Your task to perform on an android device: Open ESPN.com Image 0: 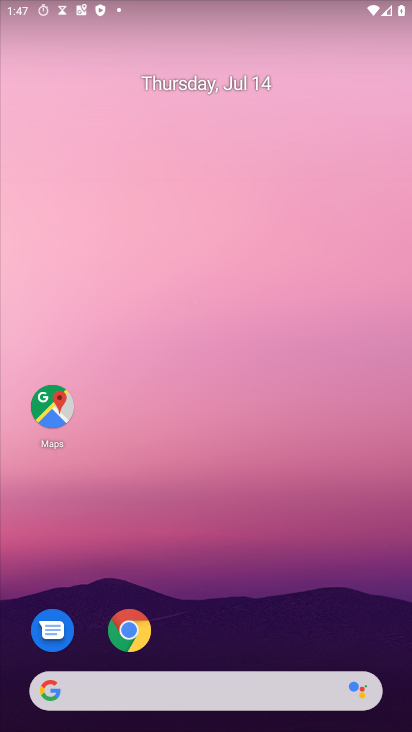
Step 0: click (130, 619)
Your task to perform on an android device: Open ESPN.com Image 1: 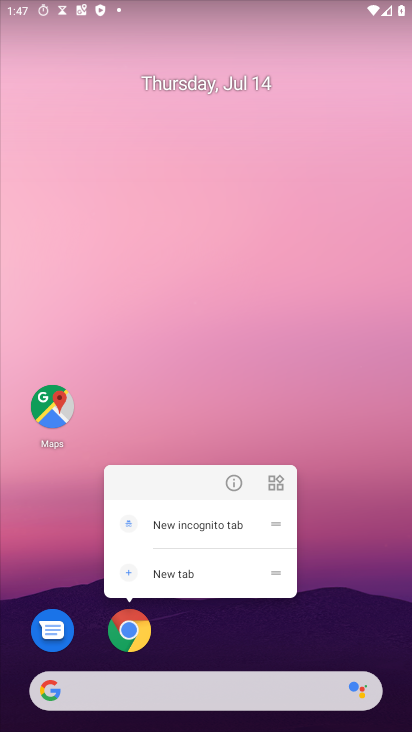
Step 1: click (127, 637)
Your task to perform on an android device: Open ESPN.com Image 2: 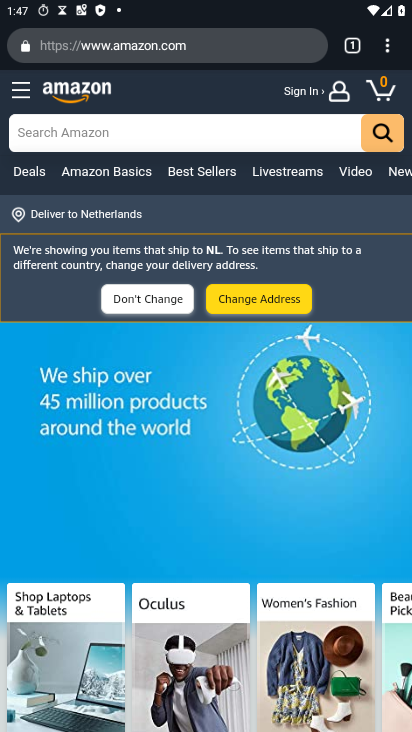
Step 2: click (164, 50)
Your task to perform on an android device: Open ESPN.com Image 3: 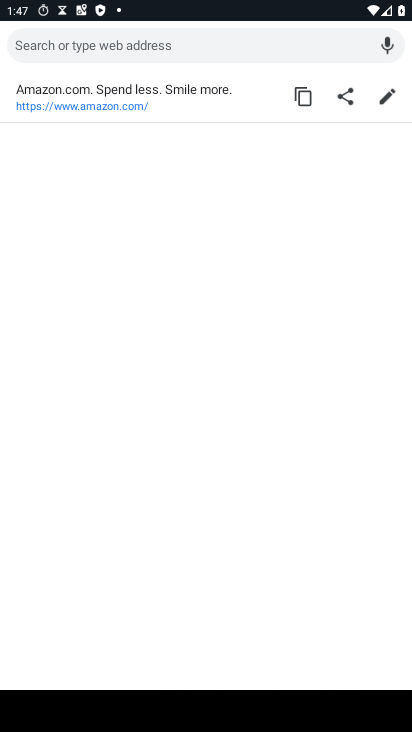
Step 3: type "espn.com"
Your task to perform on an android device: Open ESPN.com Image 4: 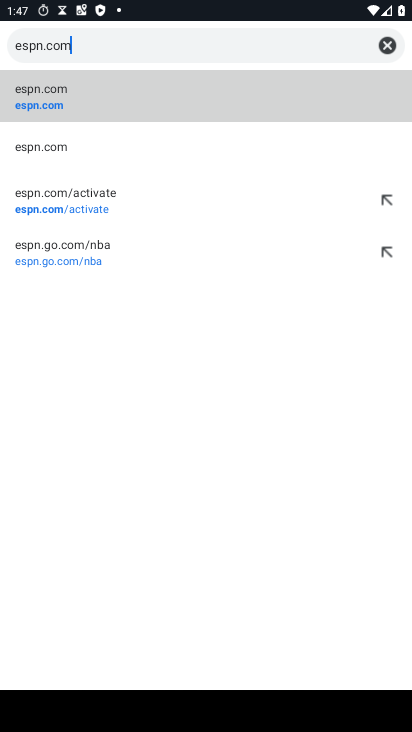
Step 4: click (274, 97)
Your task to perform on an android device: Open ESPN.com Image 5: 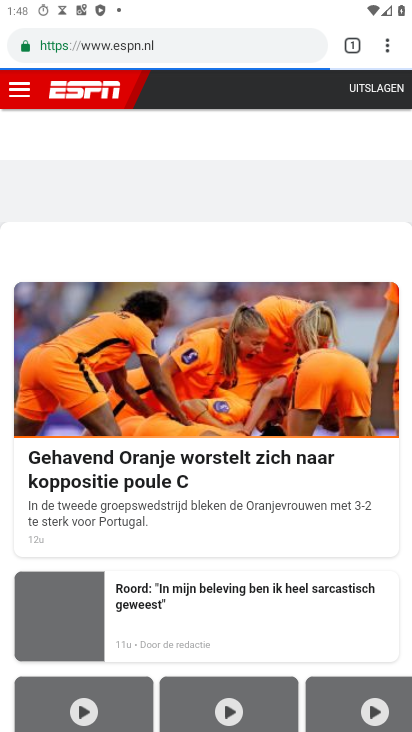
Step 5: task complete